Your task to perform on an android device: check battery use Image 0: 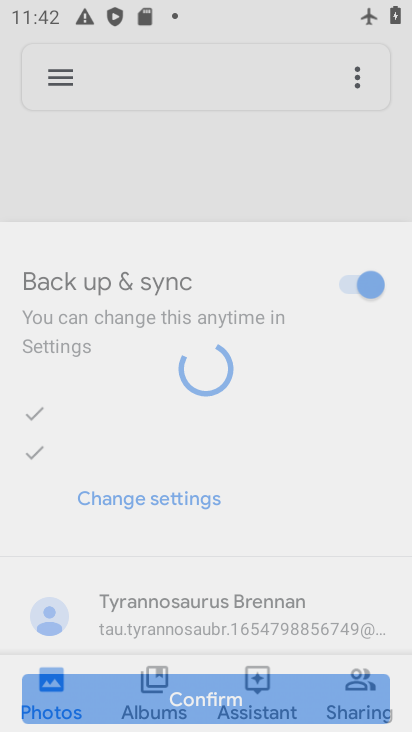
Step 0: press home button
Your task to perform on an android device: check battery use Image 1: 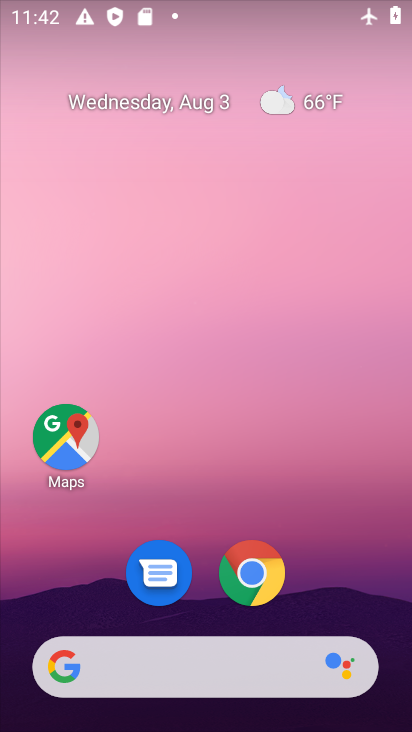
Step 1: drag from (317, 507) to (309, 56)
Your task to perform on an android device: check battery use Image 2: 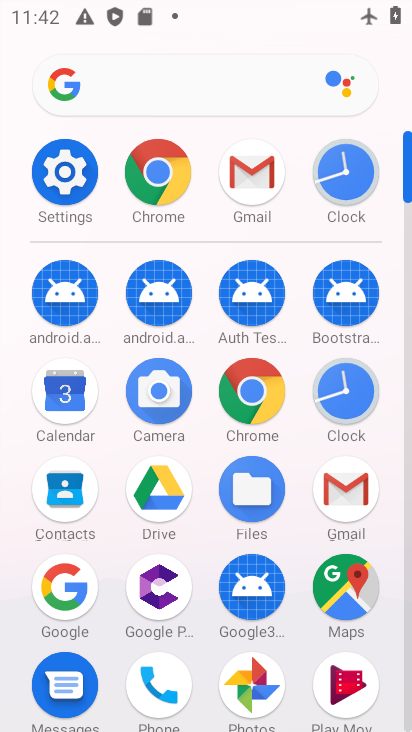
Step 2: click (65, 184)
Your task to perform on an android device: check battery use Image 3: 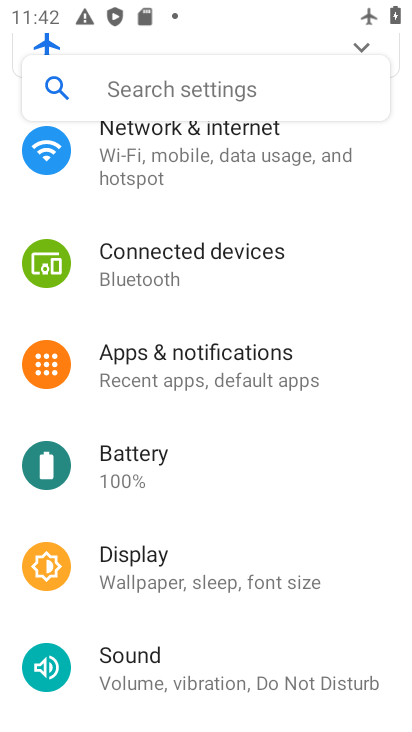
Step 3: click (144, 465)
Your task to perform on an android device: check battery use Image 4: 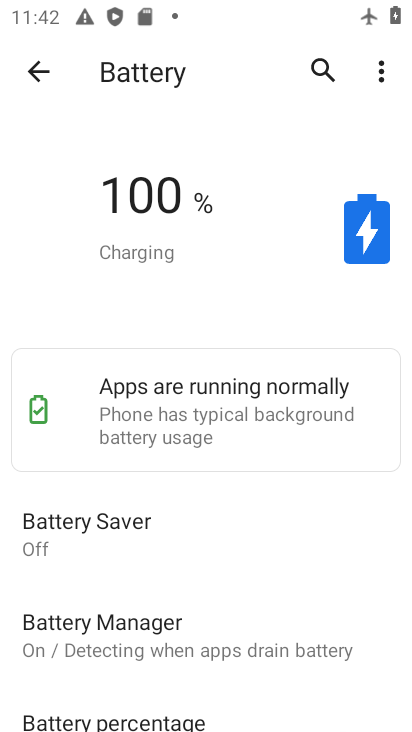
Step 4: click (387, 60)
Your task to perform on an android device: check battery use Image 5: 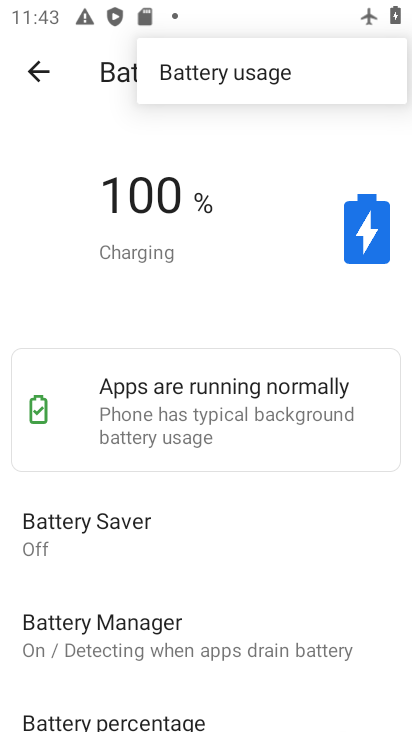
Step 5: click (297, 79)
Your task to perform on an android device: check battery use Image 6: 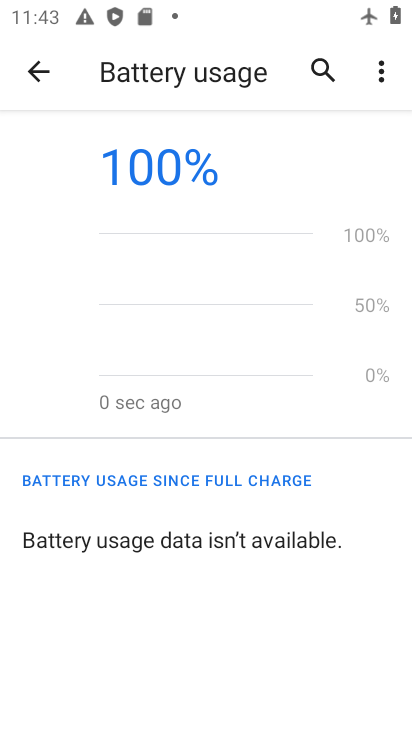
Step 6: task complete